Your task to perform on an android device: Clear the shopping cart on target.com. Search for "bose soundlink mini" on target.com, select the first entry, and add it to the cart. Image 0: 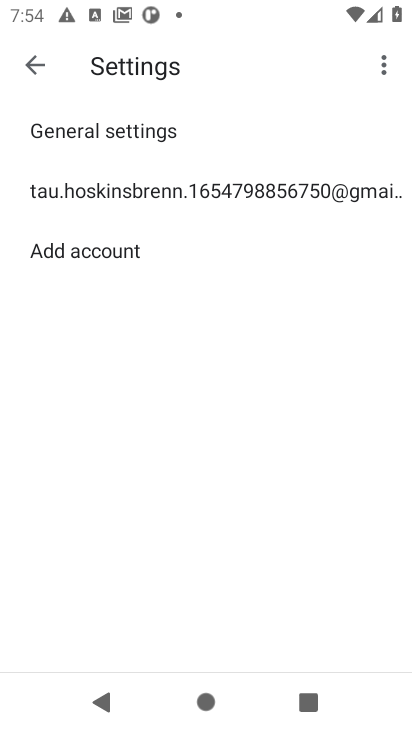
Step 0: press home button
Your task to perform on an android device: Clear the shopping cart on target.com. Search for "bose soundlink mini" on target.com, select the first entry, and add it to the cart. Image 1: 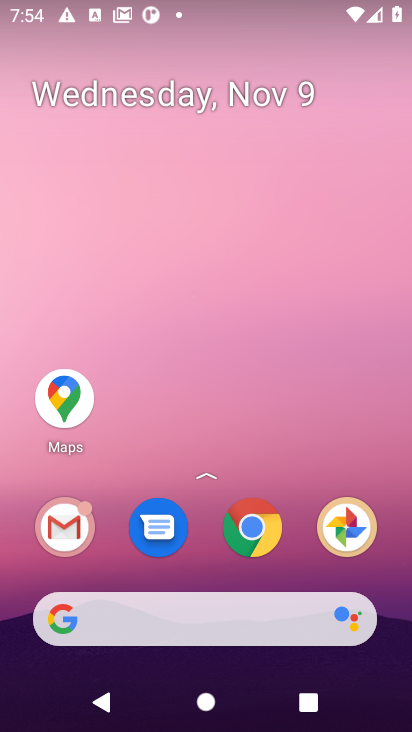
Step 1: click (259, 536)
Your task to perform on an android device: Clear the shopping cart on target.com. Search for "bose soundlink mini" on target.com, select the first entry, and add it to the cart. Image 2: 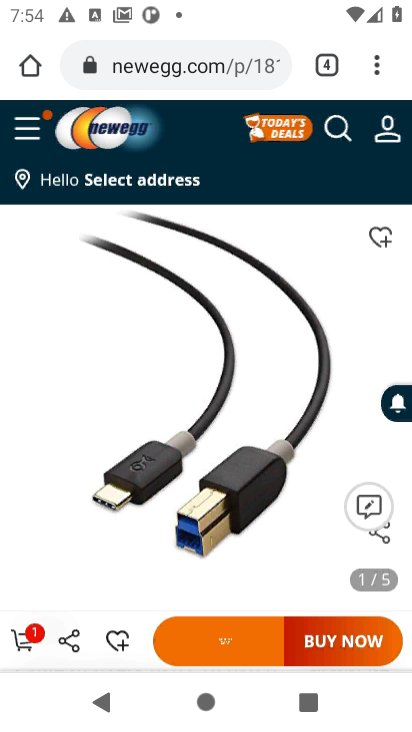
Step 2: click (175, 73)
Your task to perform on an android device: Clear the shopping cart on target.com. Search for "bose soundlink mini" on target.com, select the first entry, and add it to the cart. Image 3: 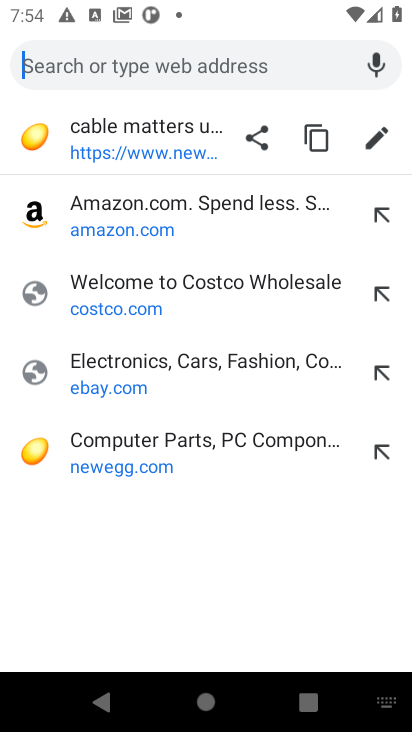
Step 3: type "target.com"
Your task to perform on an android device: Clear the shopping cart on target.com. Search for "bose soundlink mini" on target.com, select the first entry, and add it to the cart. Image 4: 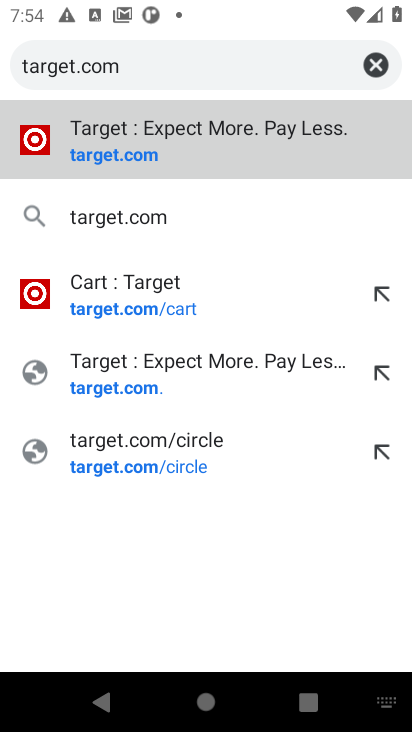
Step 4: click (109, 141)
Your task to perform on an android device: Clear the shopping cart on target.com. Search for "bose soundlink mini" on target.com, select the first entry, and add it to the cart. Image 5: 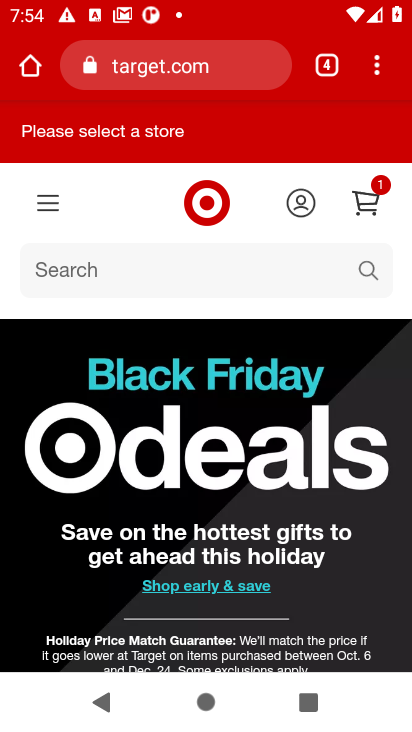
Step 5: click (369, 203)
Your task to perform on an android device: Clear the shopping cart on target.com. Search for "bose soundlink mini" on target.com, select the first entry, and add it to the cart. Image 6: 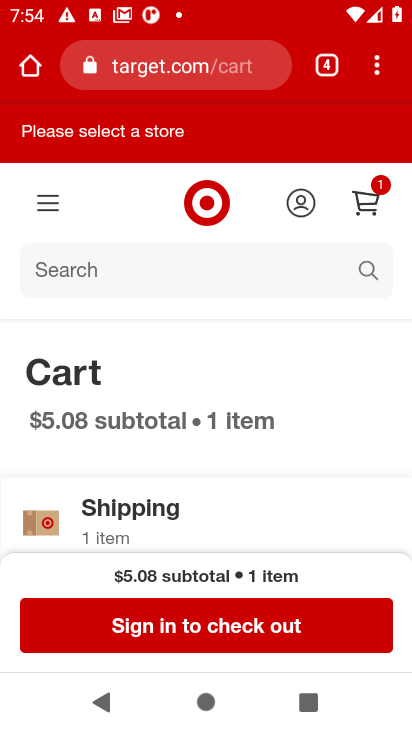
Step 6: drag from (207, 489) to (222, 338)
Your task to perform on an android device: Clear the shopping cart on target.com. Search for "bose soundlink mini" on target.com, select the first entry, and add it to the cart. Image 7: 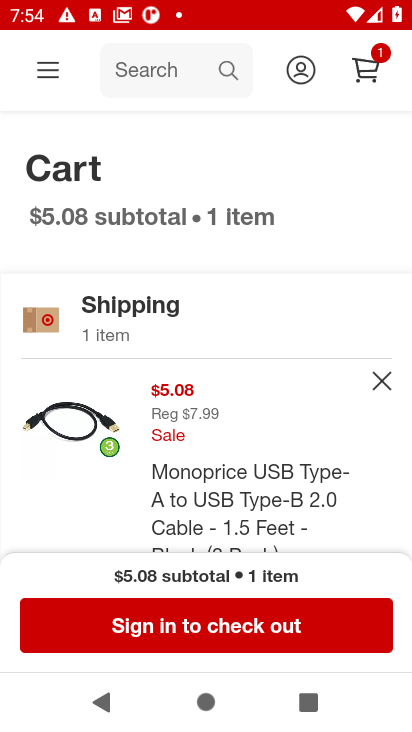
Step 7: click (382, 368)
Your task to perform on an android device: Clear the shopping cart on target.com. Search for "bose soundlink mini" on target.com, select the first entry, and add it to the cart. Image 8: 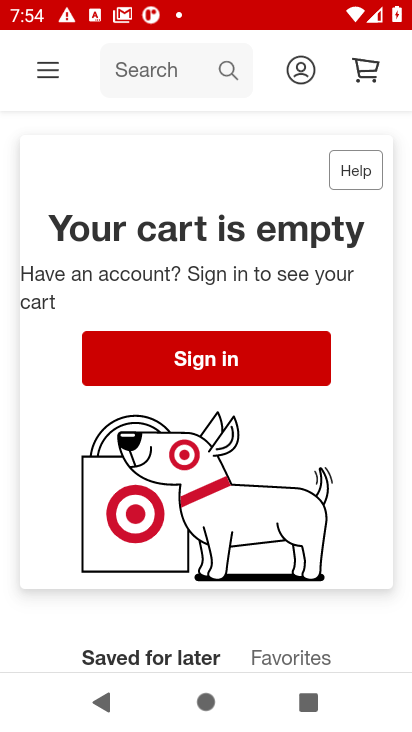
Step 8: click (230, 74)
Your task to perform on an android device: Clear the shopping cart on target.com. Search for "bose soundlink mini" on target.com, select the first entry, and add it to the cart. Image 9: 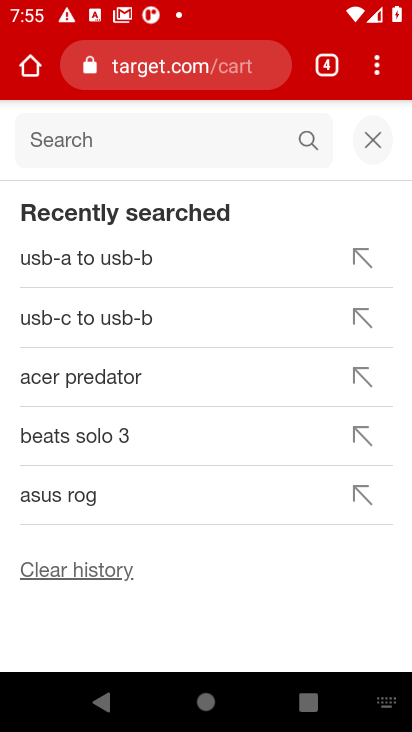
Step 9: type "bose soundlink mini"
Your task to perform on an android device: Clear the shopping cart on target.com. Search for "bose soundlink mini" on target.com, select the first entry, and add it to the cart. Image 10: 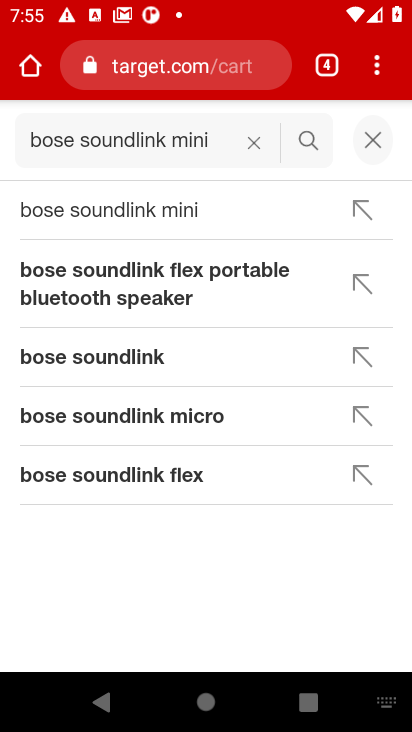
Step 10: click (166, 214)
Your task to perform on an android device: Clear the shopping cart on target.com. Search for "bose soundlink mini" on target.com, select the first entry, and add it to the cart. Image 11: 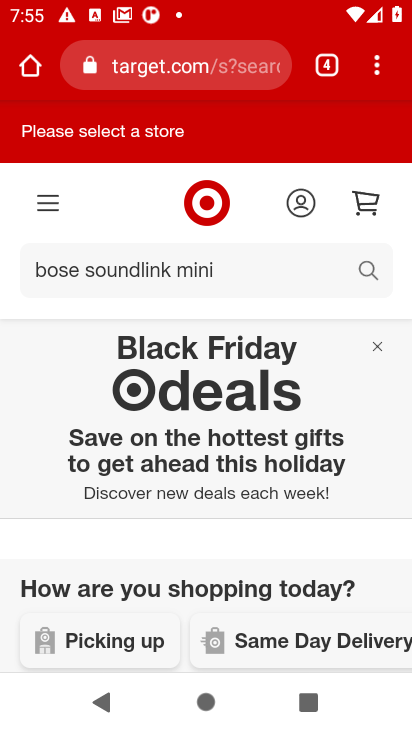
Step 11: task complete